Your task to perform on an android device: open chrome and create a bookmark for the current page Image 0: 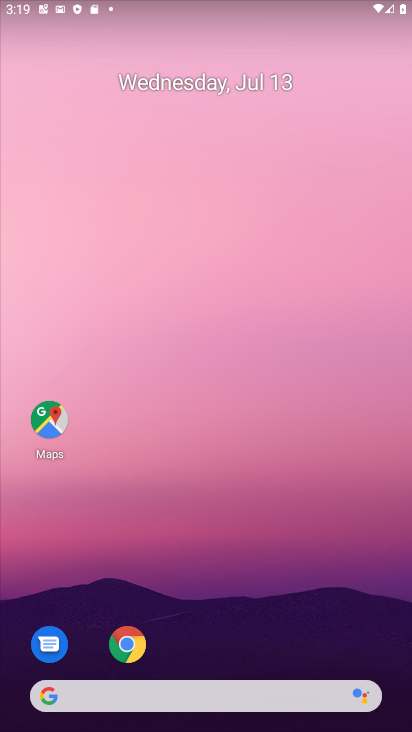
Step 0: click (88, 687)
Your task to perform on an android device: open chrome and create a bookmark for the current page Image 1: 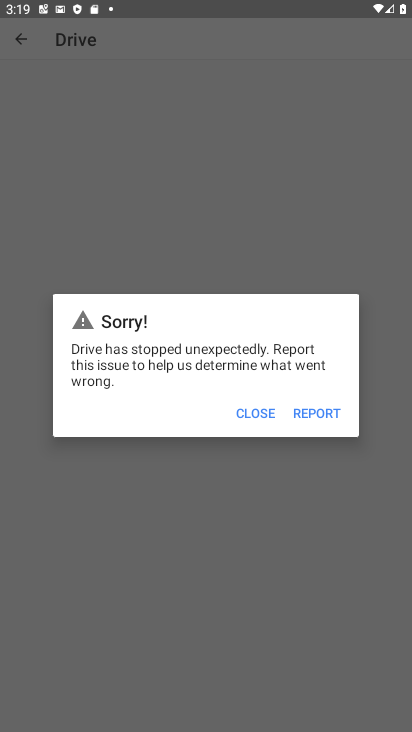
Step 1: click (259, 411)
Your task to perform on an android device: open chrome and create a bookmark for the current page Image 2: 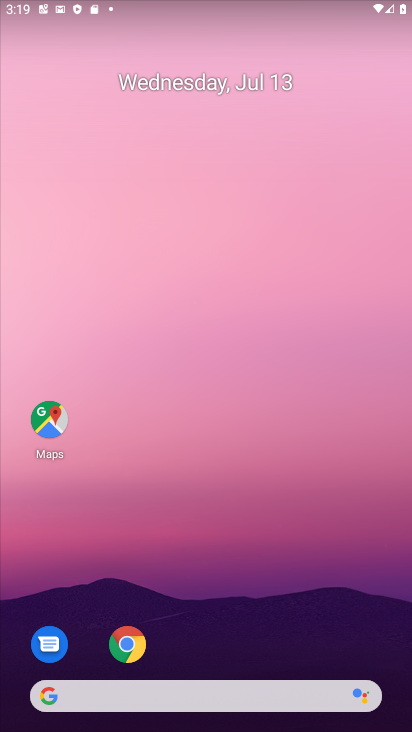
Step 2: click (120, 655)
Your task to perform on an android device: open chrome and create a bookmark for the current page Image 3: 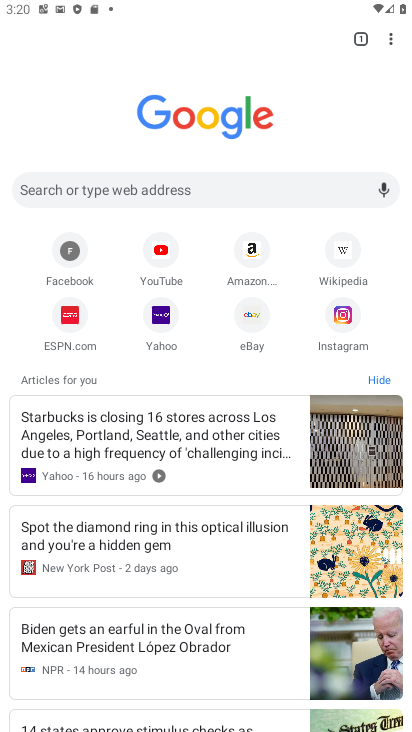
Step 3: click (387, 40)
Your task to perform on an android device: open chrome and create a bookmark for the current page Image 4: 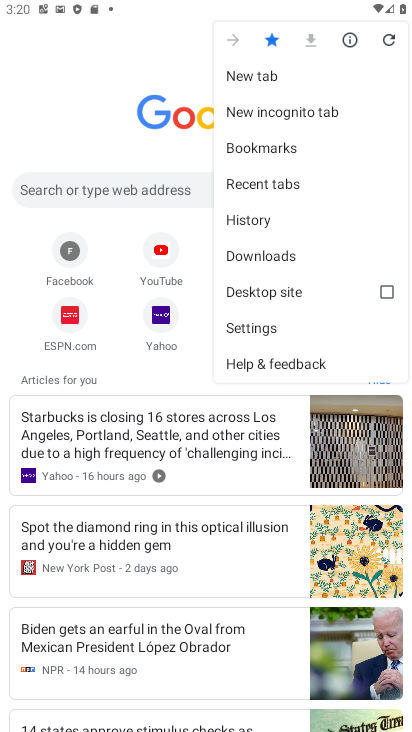
Step 4: click (271, 39)
Your task to perform on an android device: open chrome and create a bookmark for the current page Image 5: 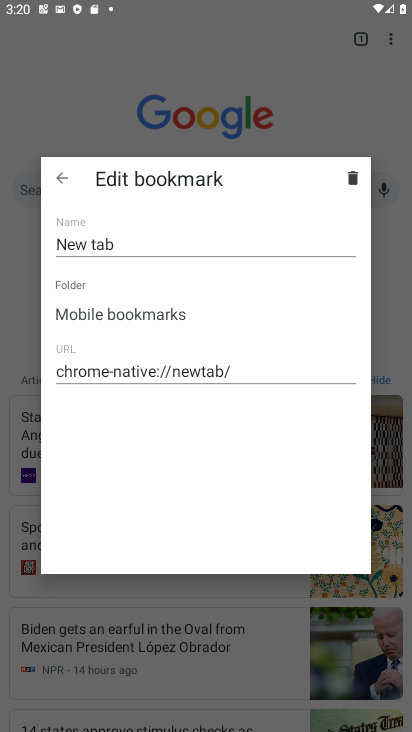
Step 5: click (243, 73)
Your task to perform on an android device: open chrome and create a bookmark for the current page Image 6: 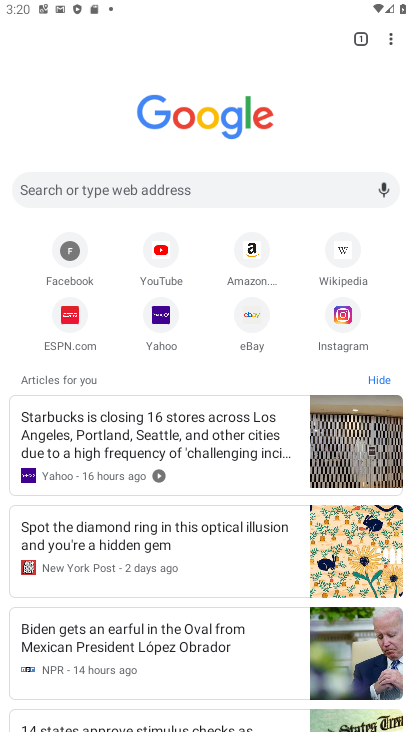
Step 6: task complete